Your task to perform on an android device: Clear the shopping cart on ebay. Add "acer nitro" to the cart on ebay, then select checkout. Image 0: 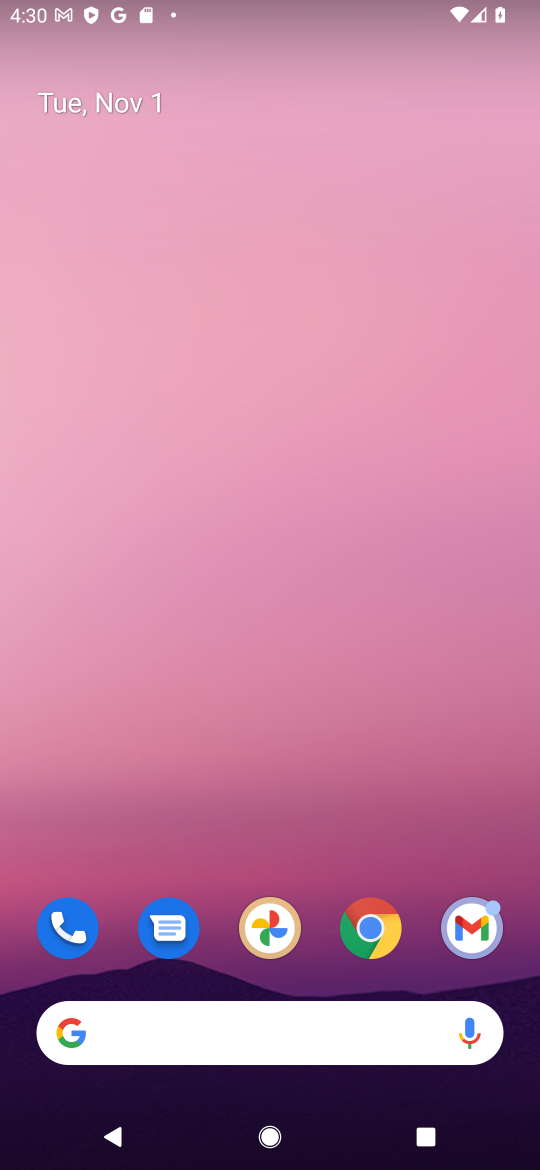
Step 0: click (390, 937)
Your task to perform on an android device: Clear the shopping cart on ebay. Add "acer nitro" to the cart on ebay, then select checkout. Image 1: 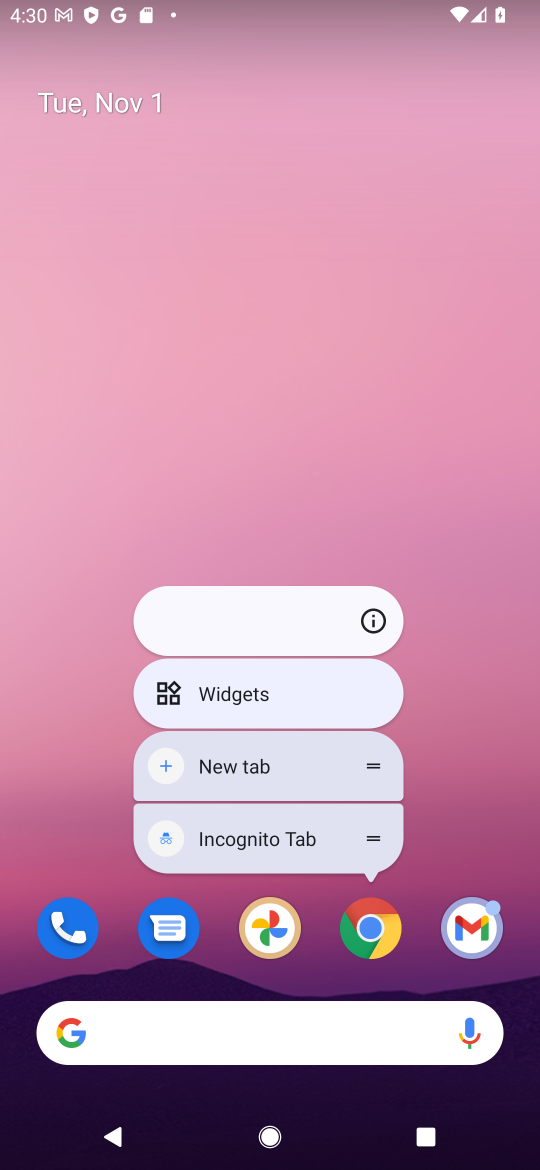
Step 1: click (358, 935)
Your task to perform on an android device: Clear the shopping cart on ebay. Add "acer nitro" to the cart on ebay, then select checkout. Image 2: 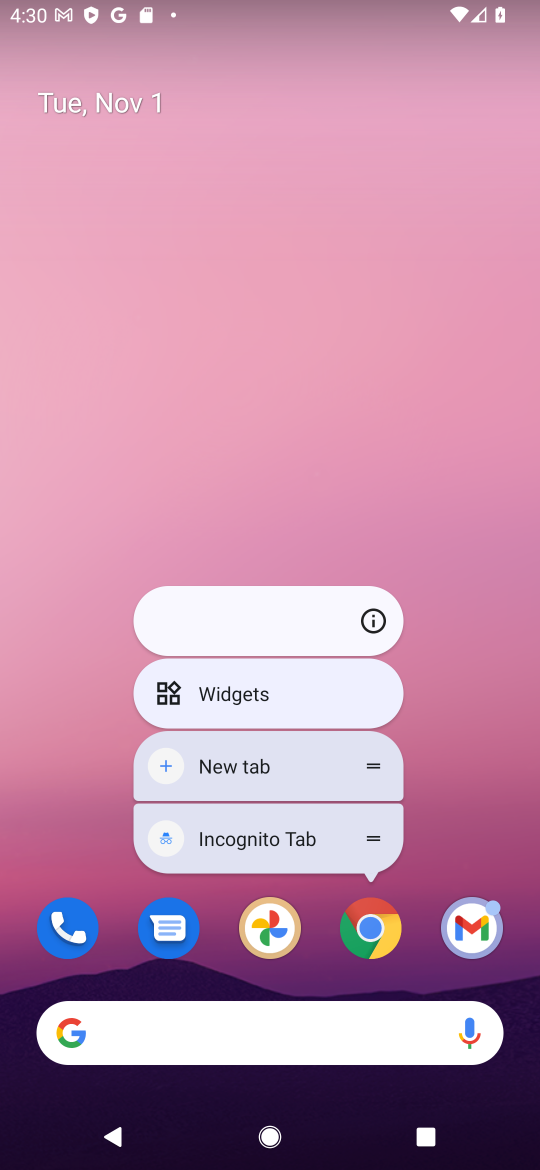
Step 2: click (364, 941)
Your task to perform on an android device: Clear the shopping cart on ebay. Add "acer nitro" to the cart on ebay, then select checkout. Image 3: 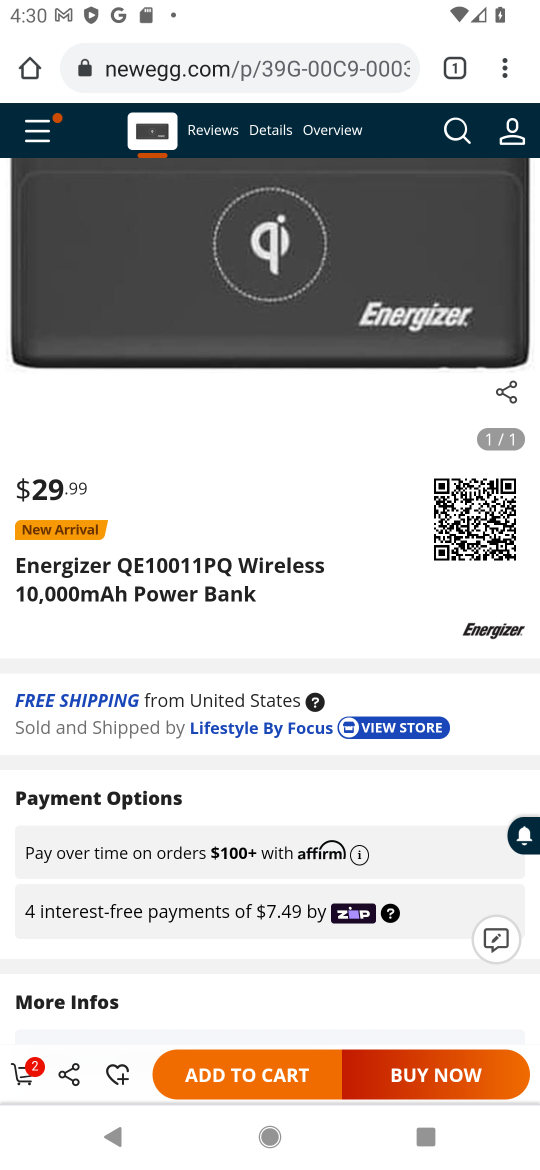
Step 3: click (264, 79)
Your task to perform on an android device: Clear the shopping cart on ebay. Add "acer nitro" to the cart on ebay, then select checkout. Image 4: 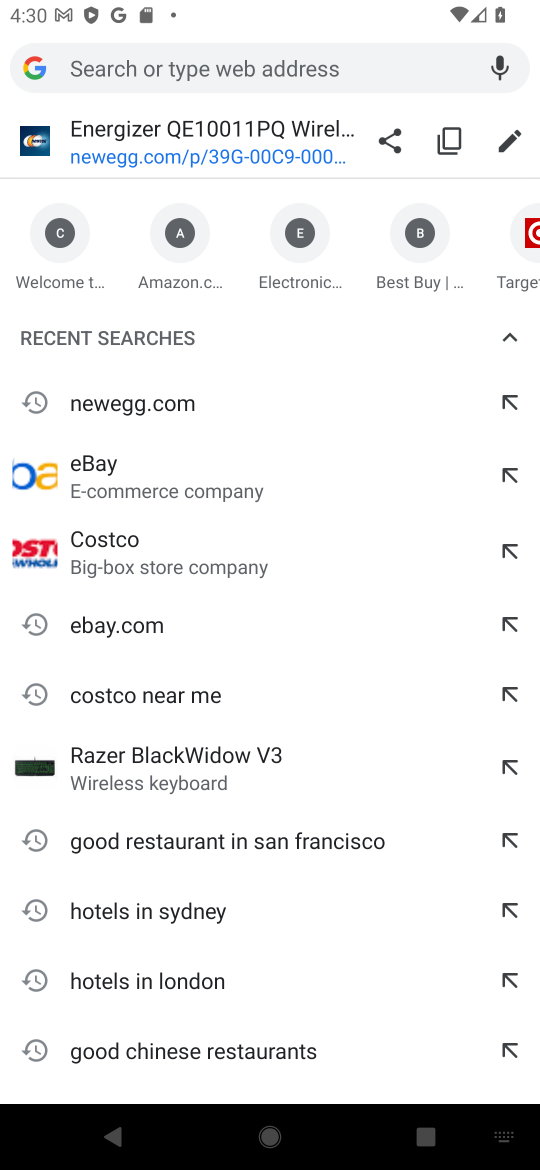
Step 4: type "ebay"
Your task to perform on an android device: Clear the shopping cart on ebay. Add "acer nitro" to the cart on ebay, then select checkout. Image 5: 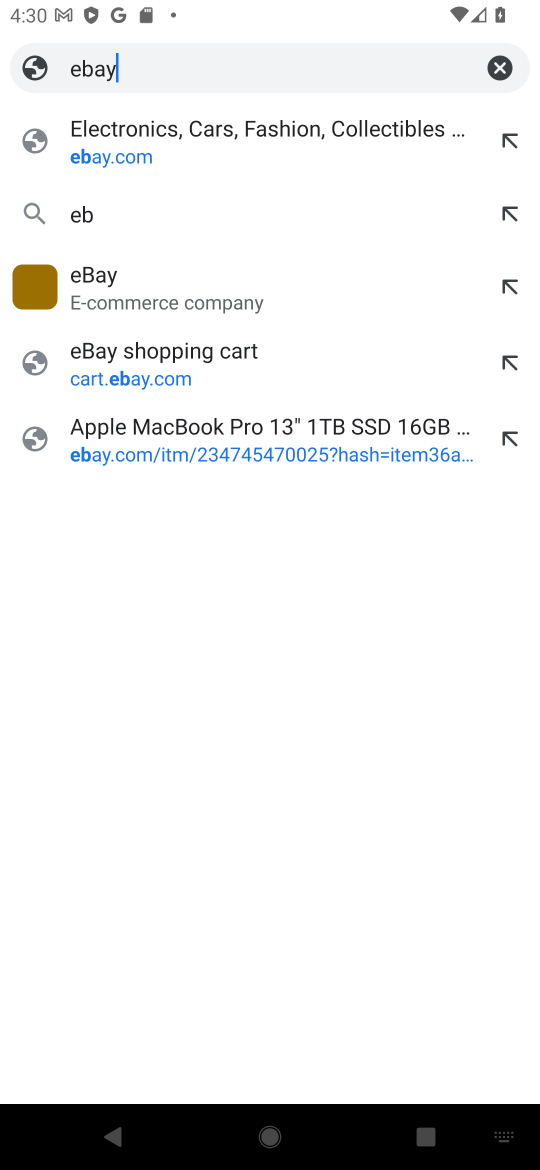
Step 5: type ""
Your task to perform on an android device: Clear the shopping cart on ebay. Add "acer nitro" to the cart on ebay, then select checkout. Image 6: 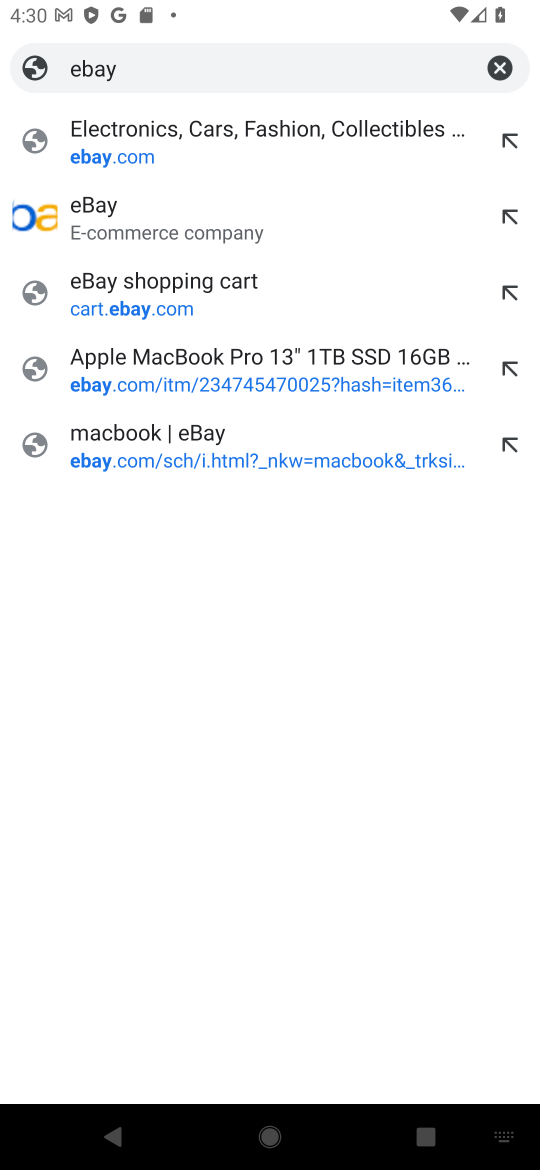
Step 6: press enter
Your task to perform on an android device: Clear the shopping cart on ebay. Add "acer nitro" to the cart on ebay, then select checkout. Image 7: 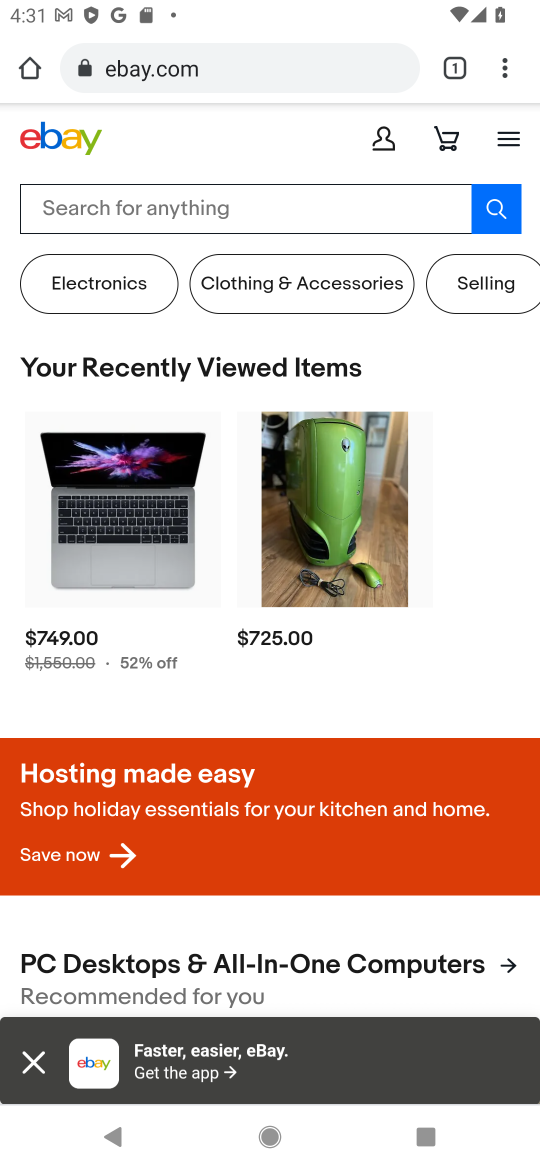
Step 7: click (445, 142)
Your task to perform on an android device: Clear the shopping cart on ebay. Add "acer nitro" to the cart on ebay, then select checkout. Image 8: 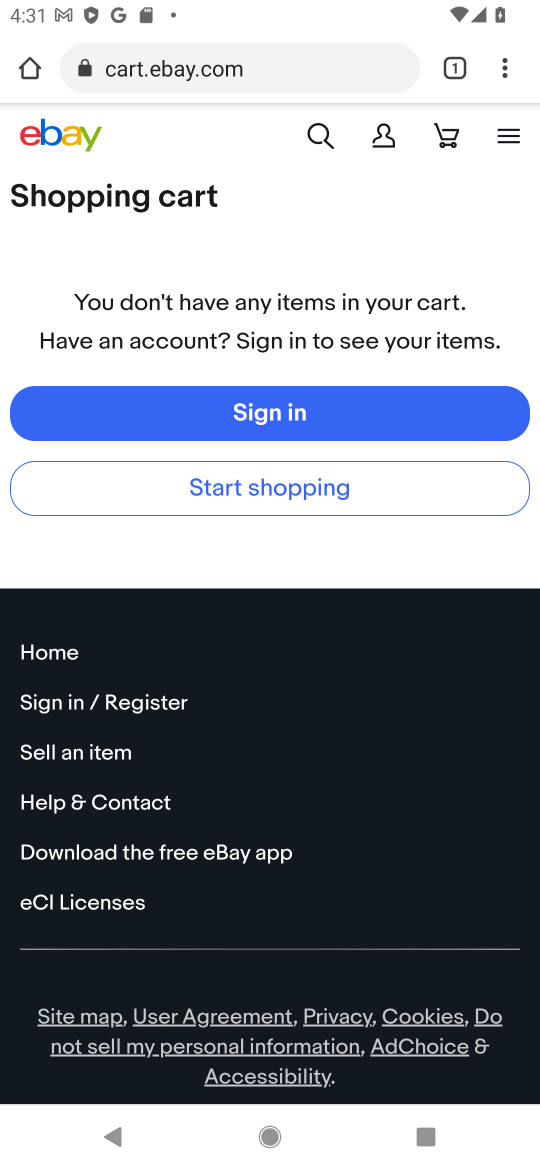
Step 8: click (311, 143)
Your task to perform on an android device: Clear the shopping cart on ebay. Add "acer nitro" to the cart on ebay, then select checkout. Image 9: 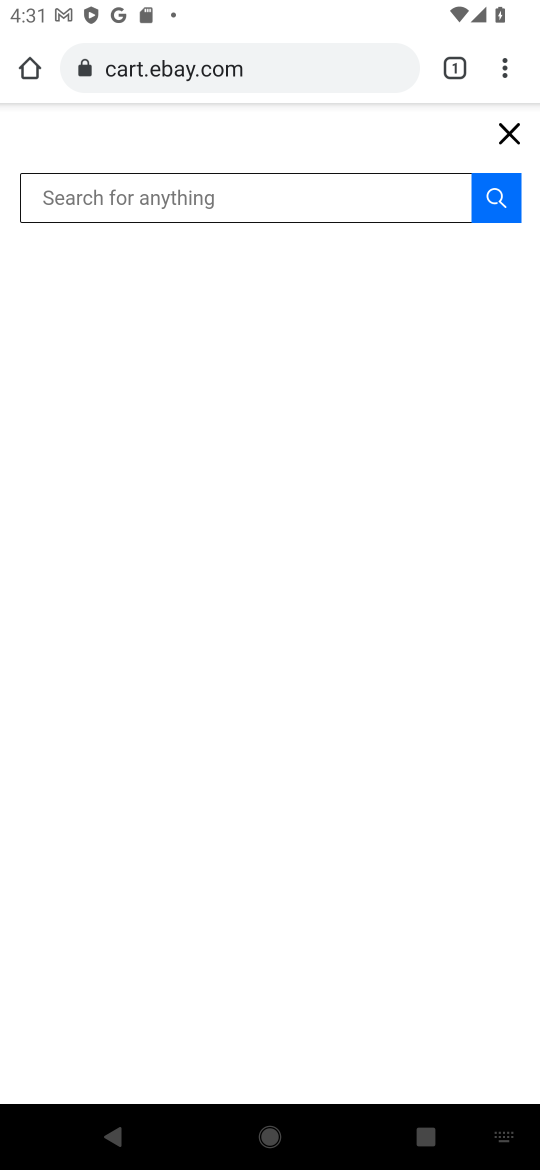
Step 9: type "acer nitro"
Your task to perform on an android device: Clear the shopping cart on ebay. Add "acer nitro" to the cart on ebay, then select checkout. Image 10: 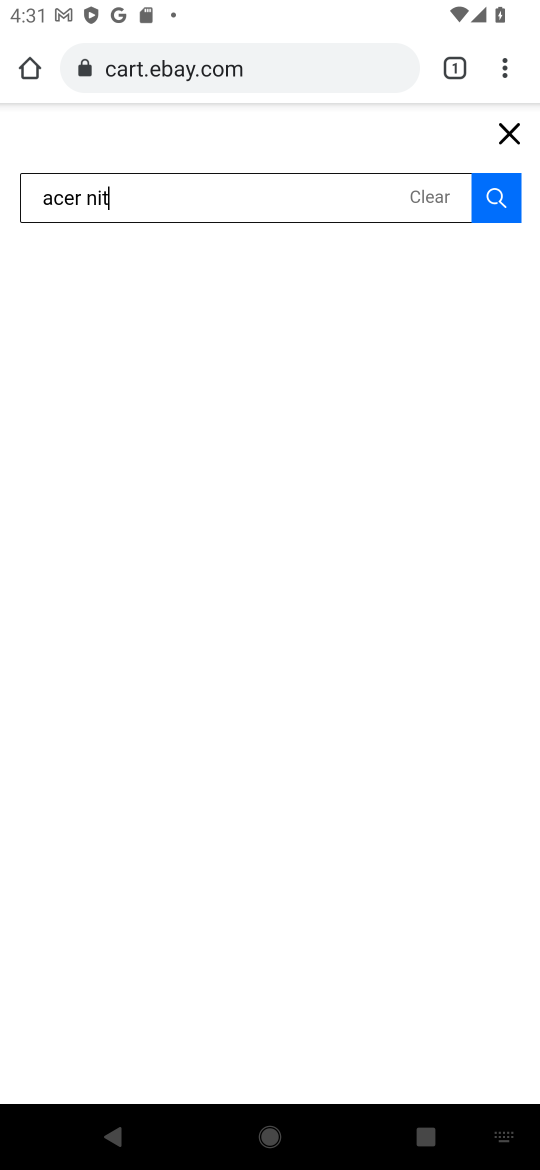
Step 10: type ""
Your task to perform on an android device: Clear the shopping cart on ebay. Add "acer nitro" to the cart on ebay, then select checkout. Image 11: 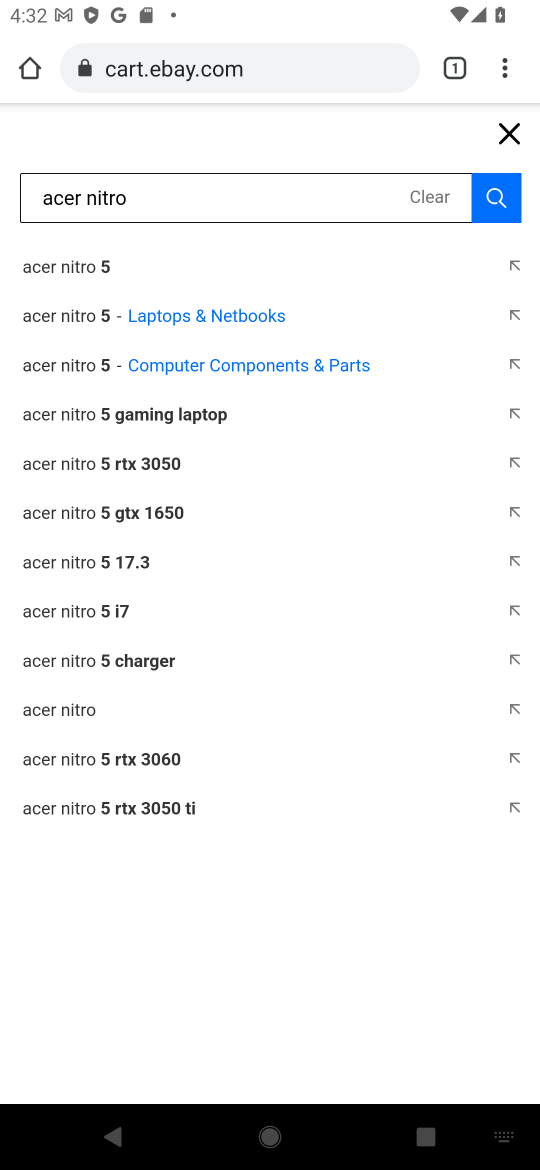
Step 11: press enter
Your task to perform on an android device: Clear the shopping cart on ebay. Add "acer nitro" to the cart on ebay, then select checkout. Image 12: 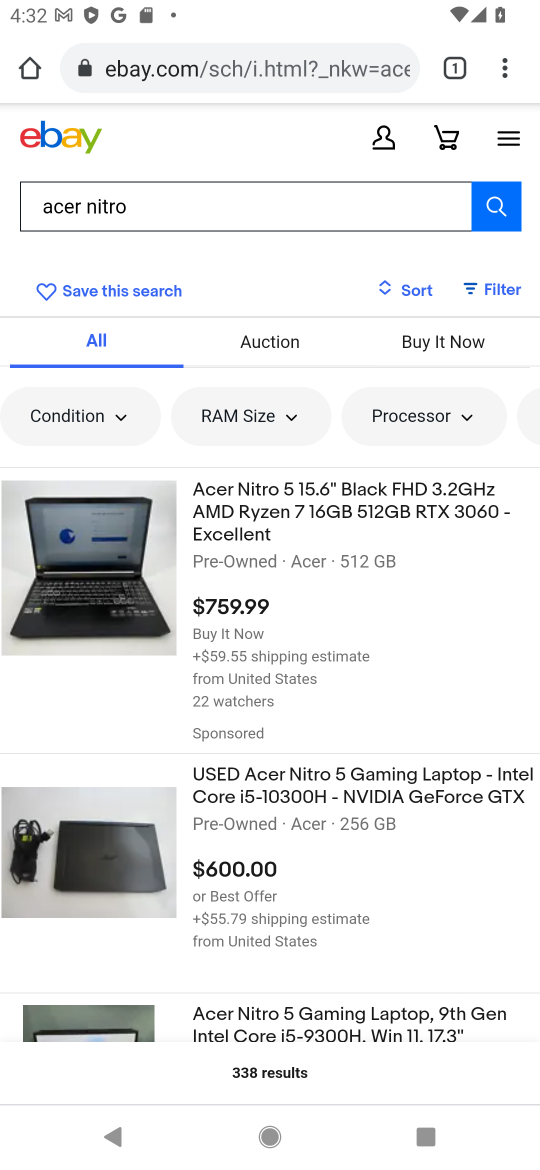
Step 12: click (337, 505)
Your task to perform on an android device: Clear the shopping cart on ebay. Add "acer nitro" to the cart on ebay, then select checkout. Image 13: 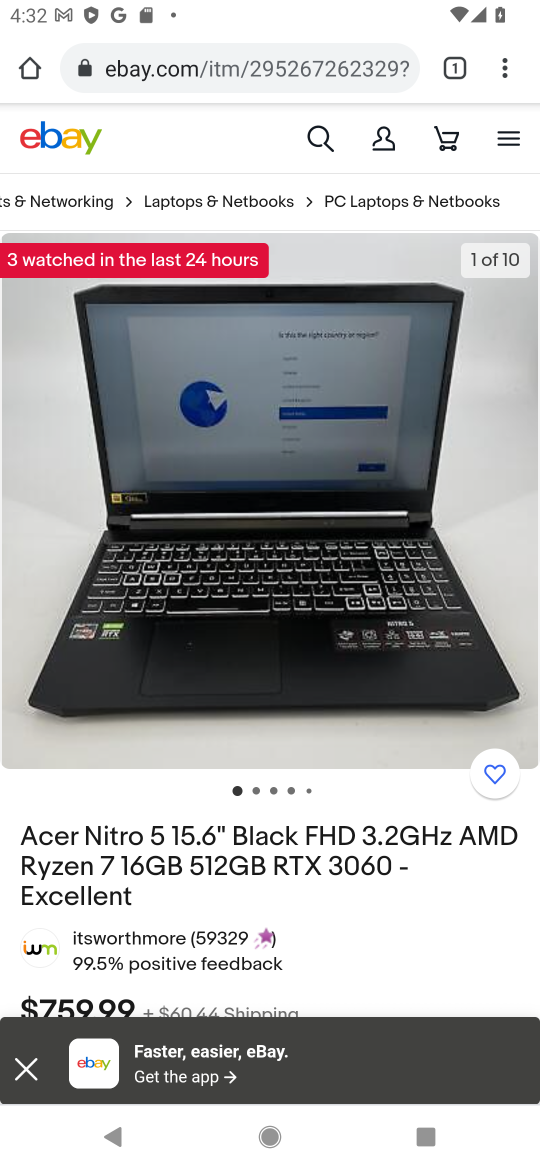
Step 13: drag from (287, 839) to (271, 445)
Your task to perform on an android device: Clear the shopping cart on ebay. Add "acer nitro" to the cart on ebay, then select checkout. Image 14: 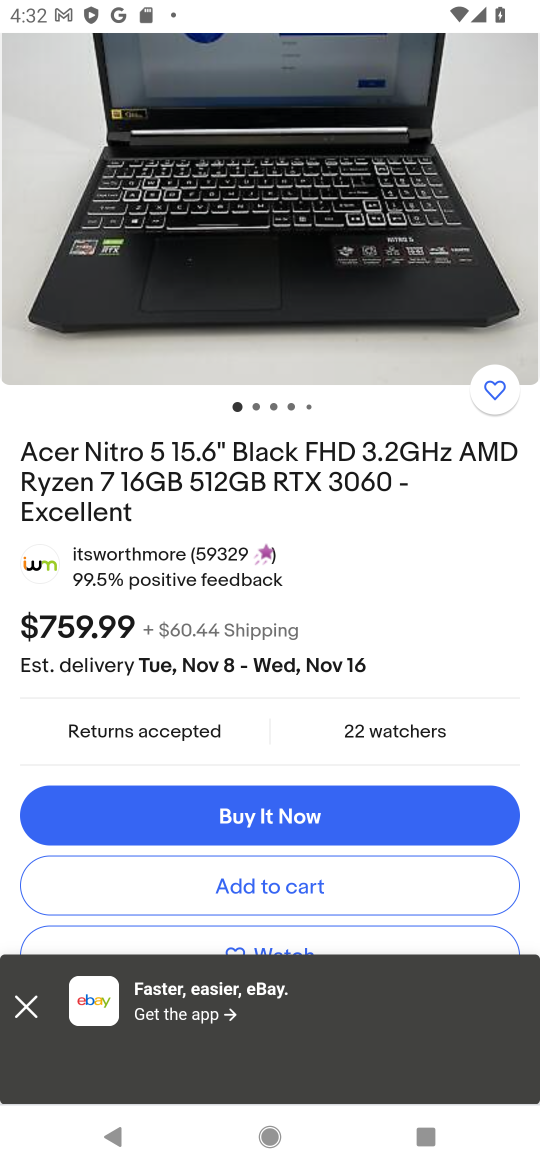
Step 14: click (311, 888)
Your task to perform on an android device: Clear the shopping cart on ebay. Add "acer nitro" to the cart on ebay, then select checkout. Image 15: 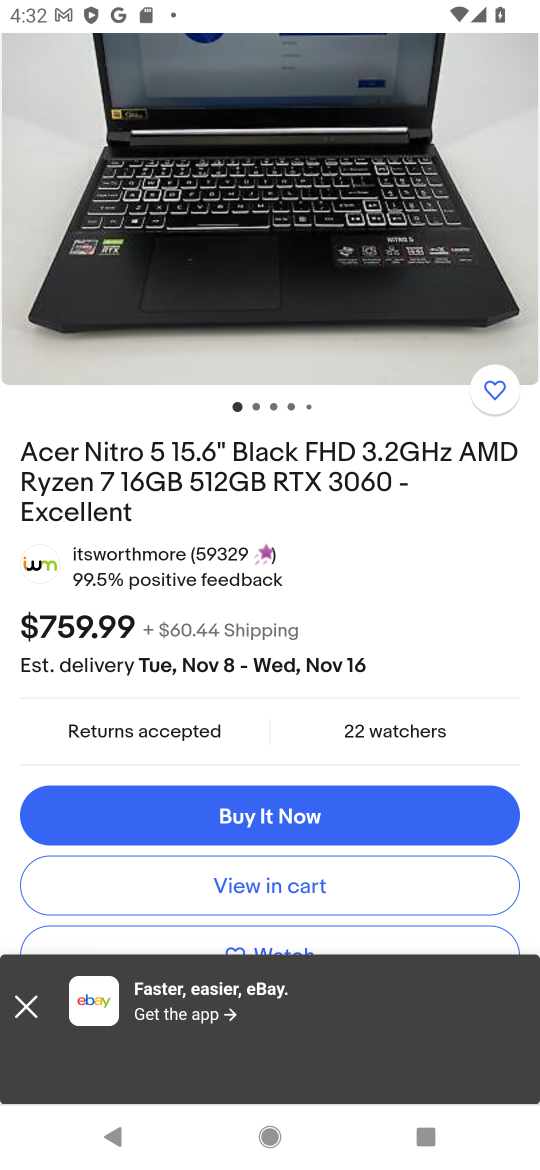
Step 15: click (311, 888)
Your task to perform on an android device: Clear the shopping cart on ebay. Add "acer nitro" to the cart on ebay, then select checkout. Image 16: 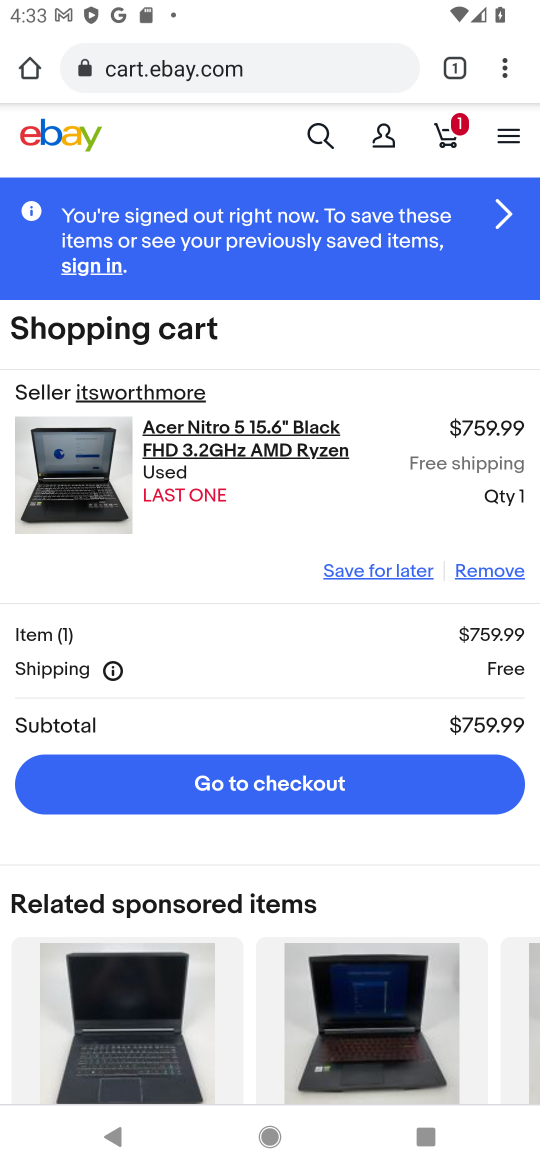
Step 16: click (302, 785)
Your task to perform on an android device: Clear the shopping cart on ebay. Add "acer nitro" to the cart on ebay, then select checkout. Image 17: 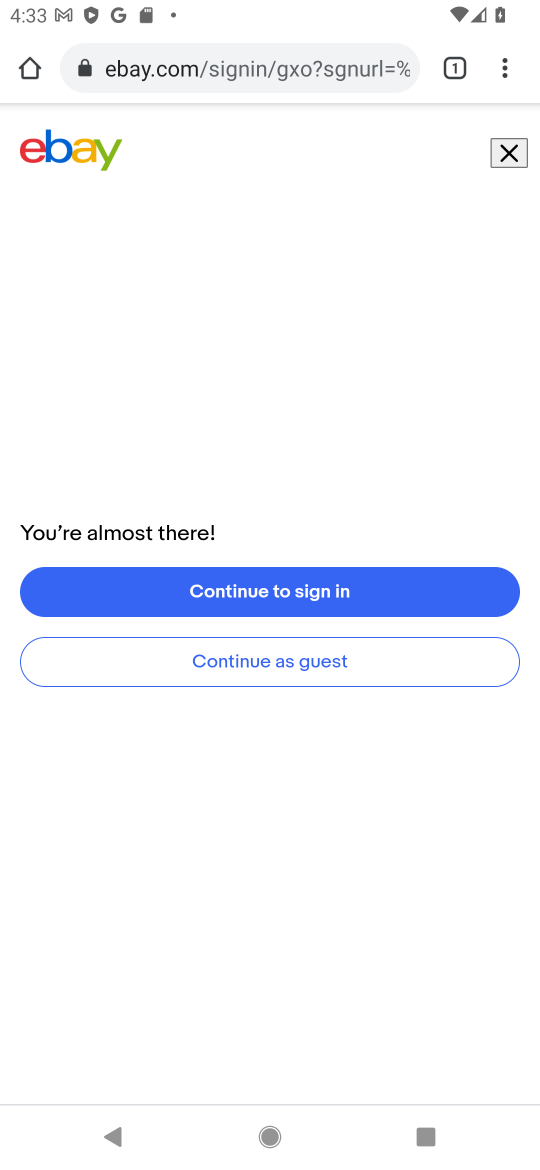
Step 17: click (356, 656)
Your task to perform on an android device: Clear the shopping cart on ebay. Add "acer nitro" to the cart on ebay, then select checkout. Image 18: 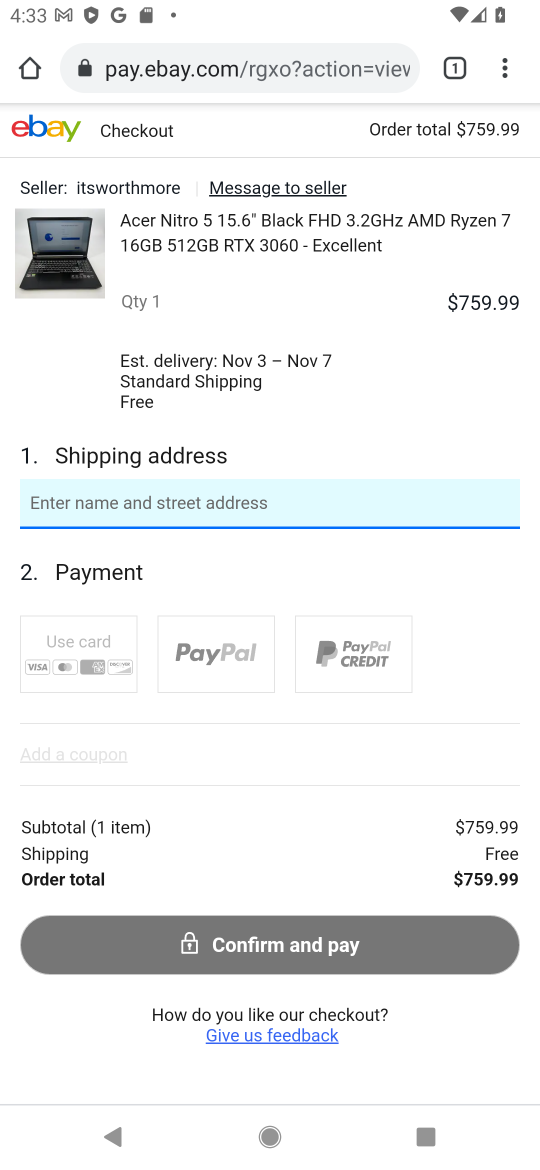
Step 18: task complete